Your task to perform on an android device: add a contact in the contacts app Image 0: 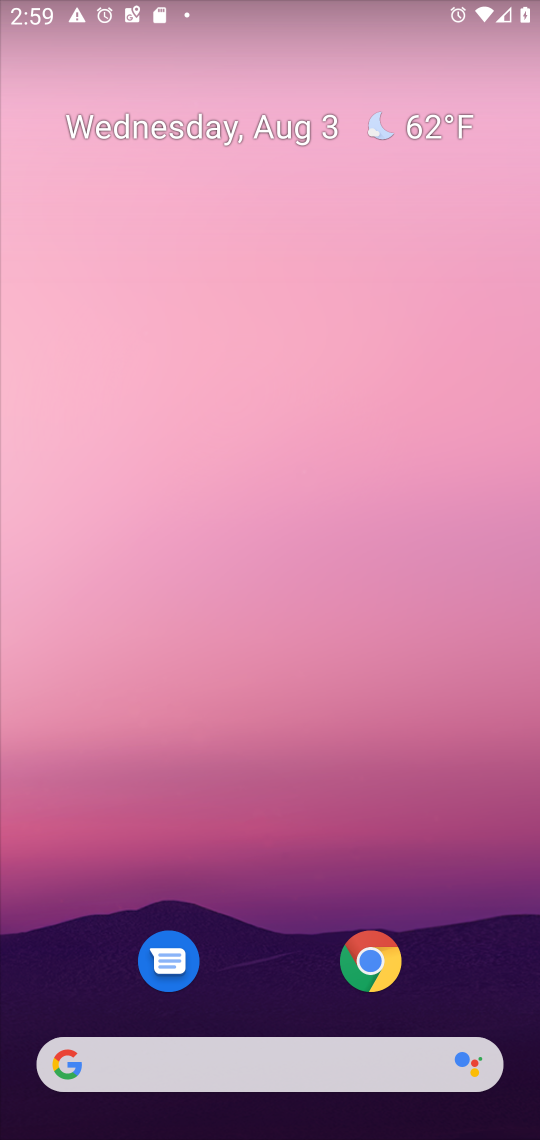
Step 0: drag from (272, 813) to (289, 1)
Your task to perform on an android device: add a contact in the contacts app Image 1: 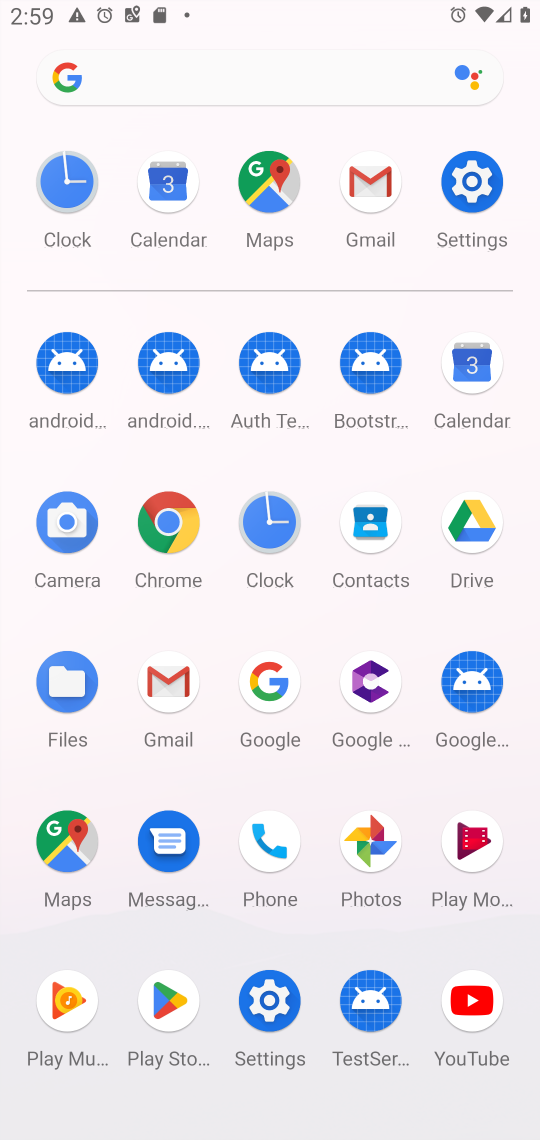
Step 1: click (358, 524)
Your task to perform on an android device: add a contact in the contacts app Image 2: 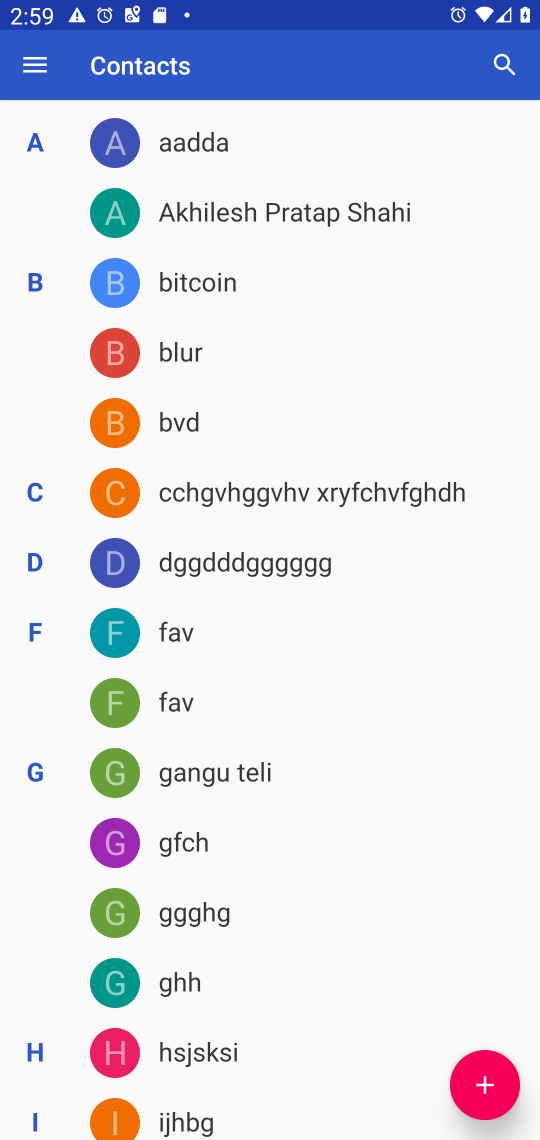
Step 2: click (479, 1081)
Your task to perform on an android device: add a contact in the contacts app Image 3: 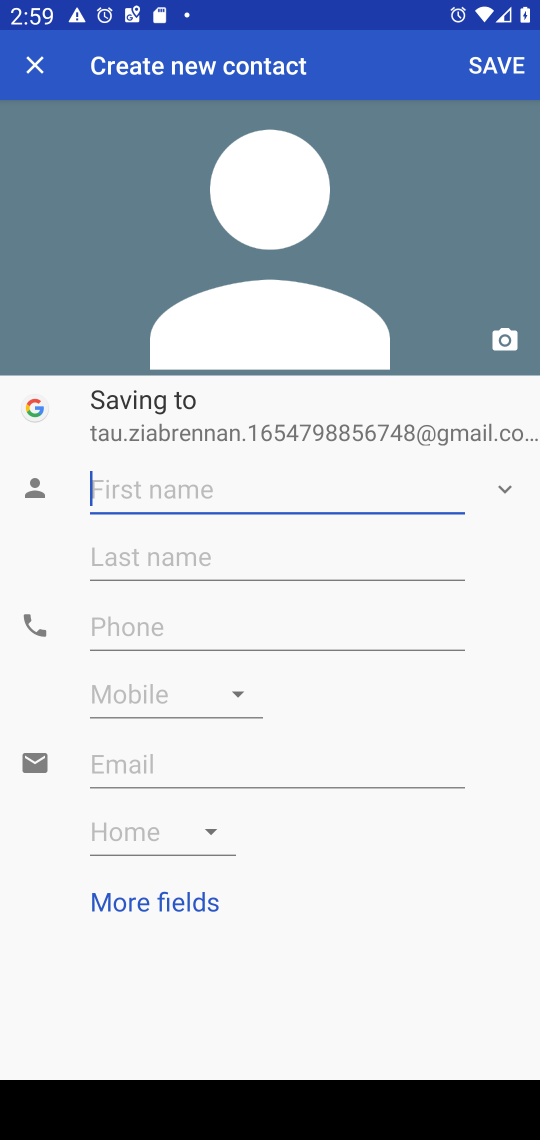
Step 3: click (186, 493)
Your task to perform on an android device: add a contact in the contacts app Image 4: 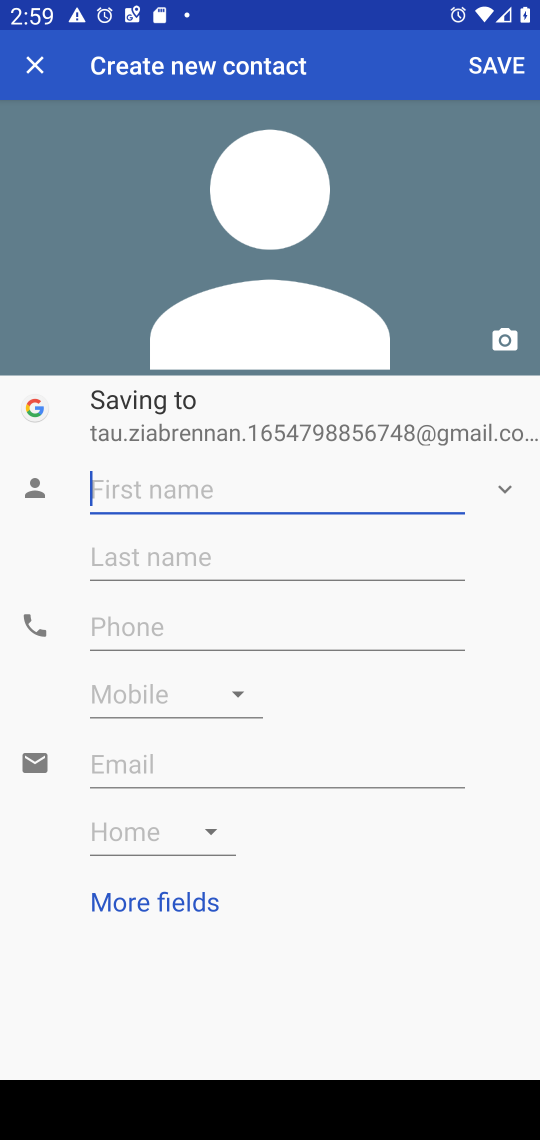
Step 4: type "yeheu"
Your task to perform on an android device: add a contact in the contacts app Image 5: 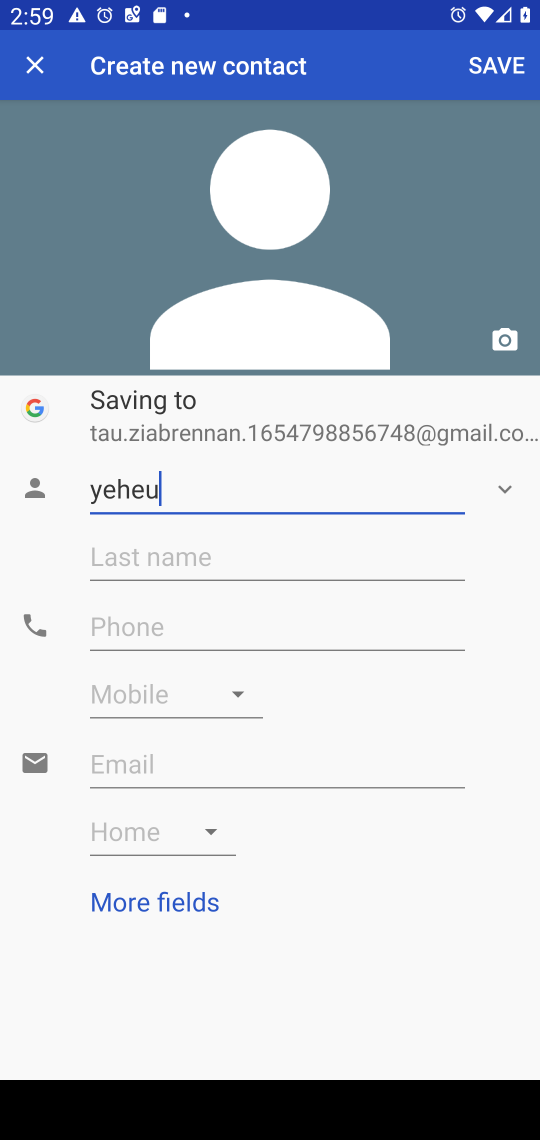
Step 5: click (346, 622)
Your task to perform on an android device: add a contact in the contacts app Image 6: 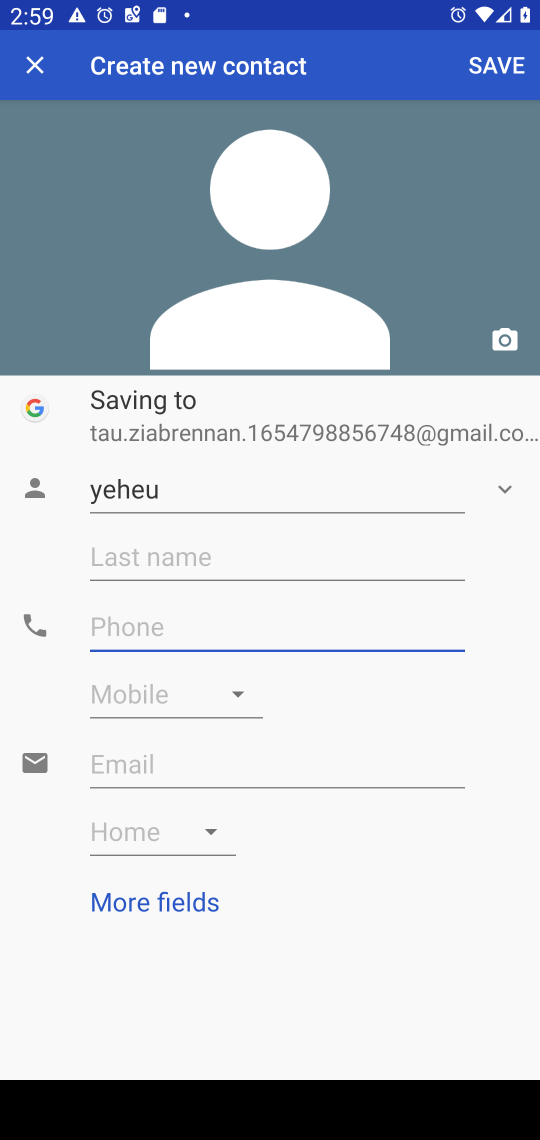
Step 6: type "746353637"
Your task to perform on an android device: add a contact in the contacts app Image 7: 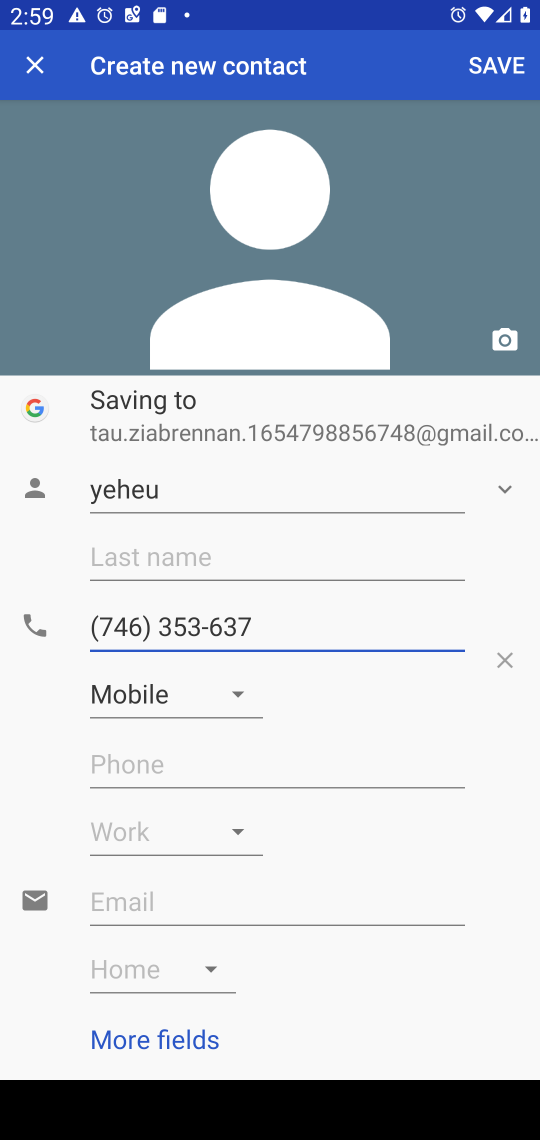
Step 7: click (495, 74)
Your task to perform on an android device: add a contact in the contacts app Image 8: 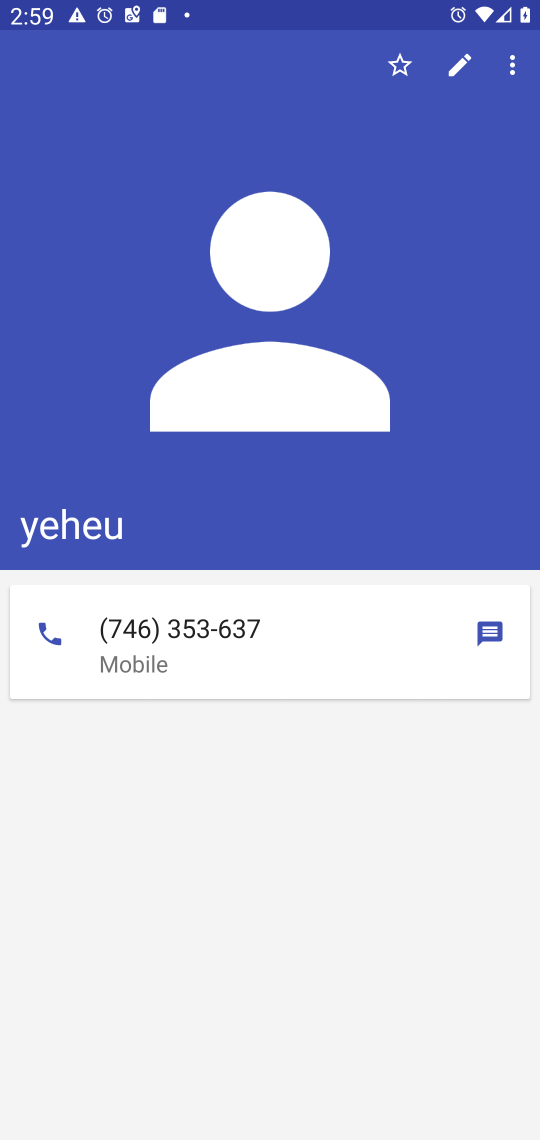
Step 8: task complete